Your task to perform on an android device: Open Google Maps Image 0: 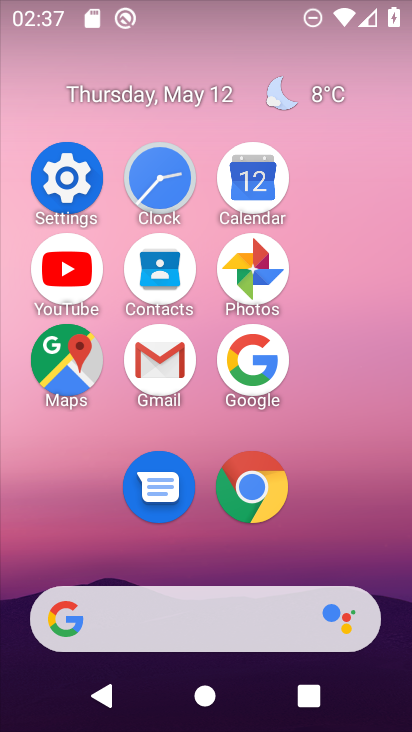
Step 0: click (69, 394)
Your task to perform on an android device: Open Google Maps Image 1: 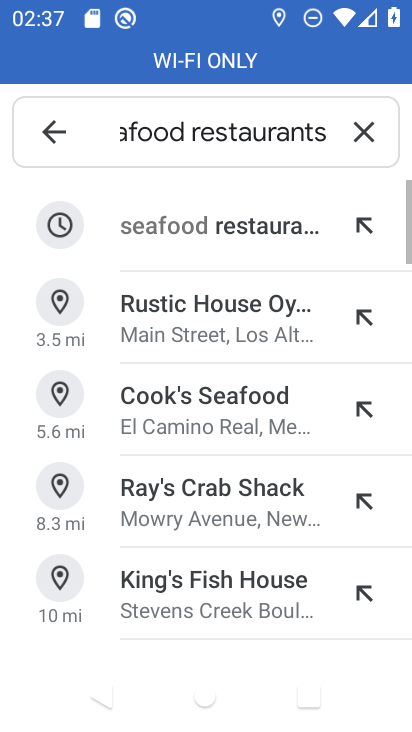
Step 1: task complete